Your task to perform on an android device: change notifications settings Image 0: 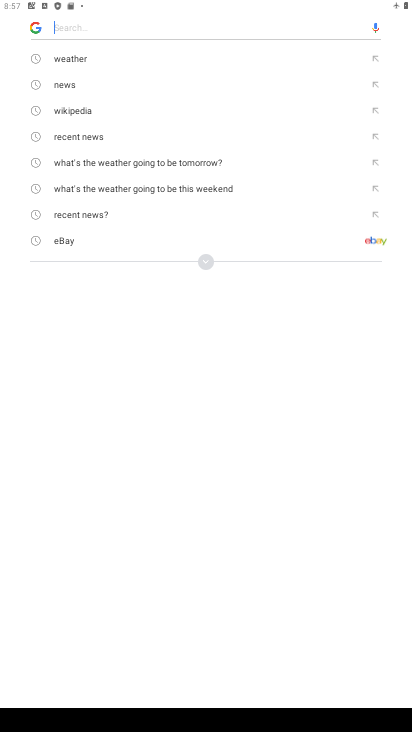
Step 0: press home button
Your task to perform on an android device: change notifications settings Image 1: 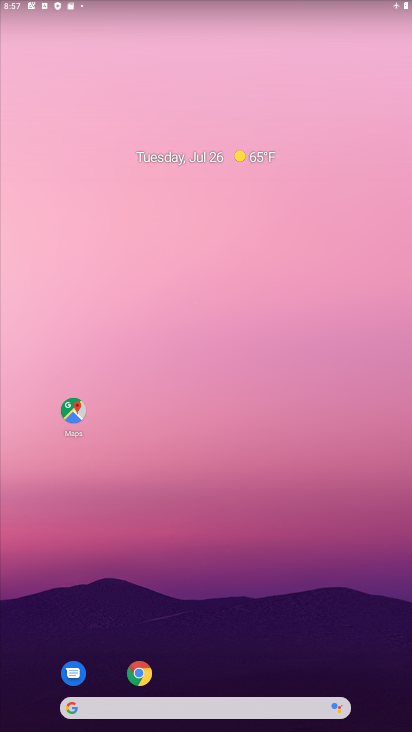
Step 1: drag from (199, 646) to (151, 11)
Your task to perform on an android device: change notifications settings Image 2: 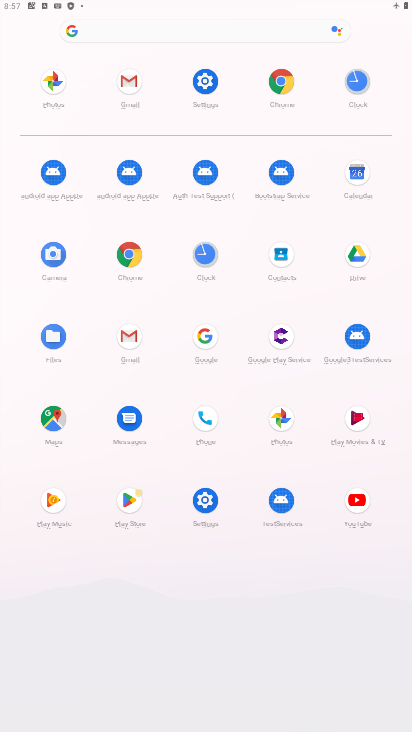
Step 2: click (193, 81)
Your task to perform on an android device: change notifications settings Image 3: 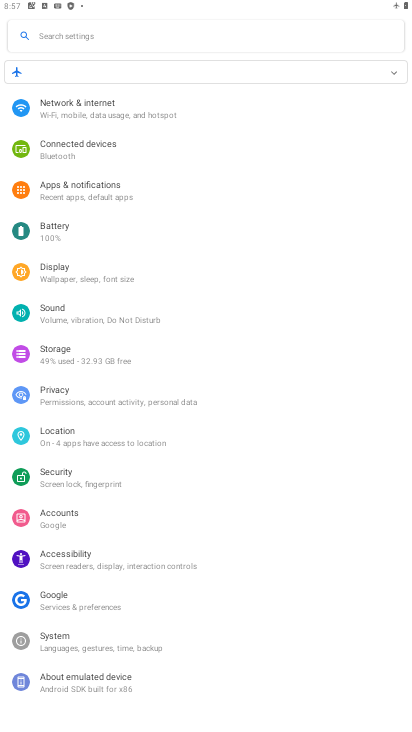
Step 3: click (120, 194)
Your task to perform on an android device: change notifications settings Image 4: 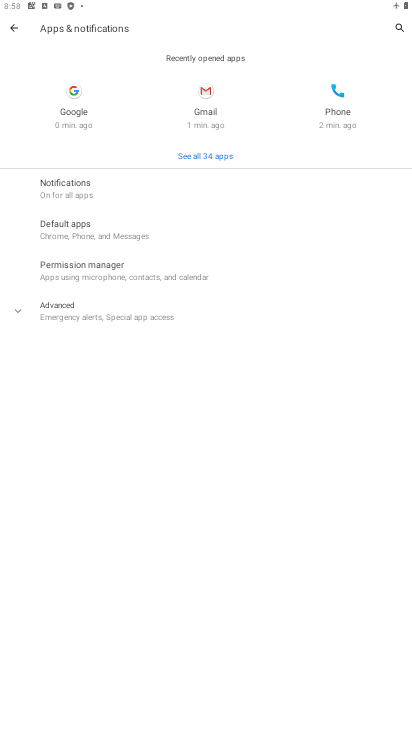
Step 4: click (120, 194)
Your task to perform on an android device: change notifications settings Image 5: 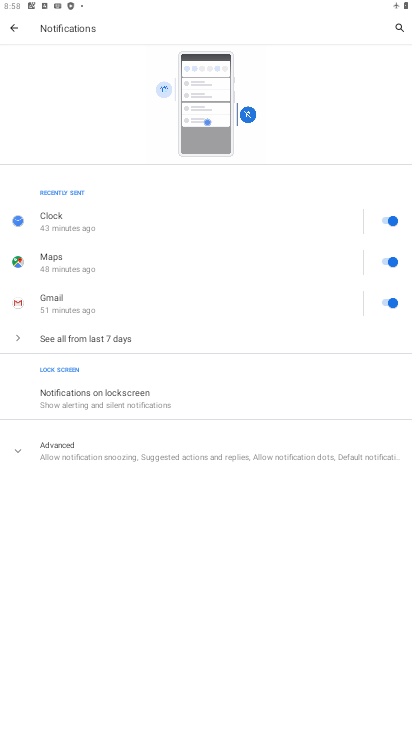
Step 5: click (120, 389)
Your task to perform on an android device: change notifications settings Image 6: 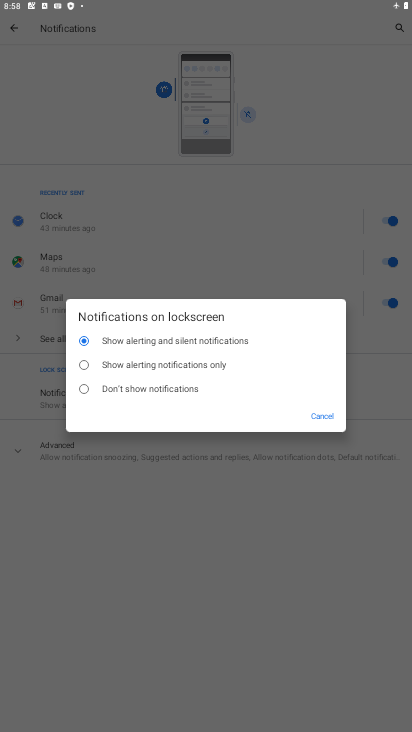
Step 6: click (136, 392)
Your task to perform on an android device: change notifications settings Image 7: 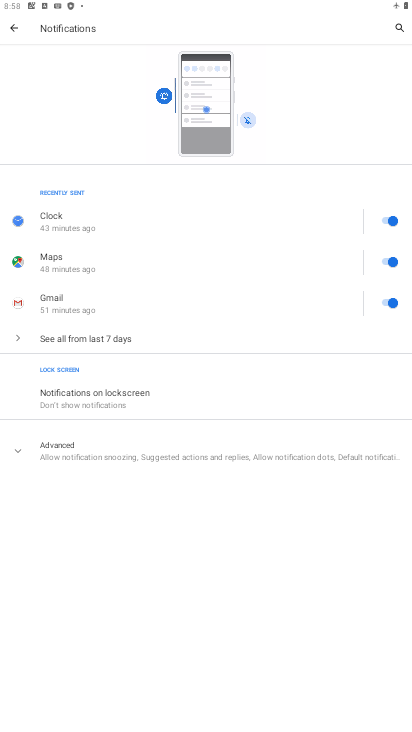
Step 7: task complete